Your task to perform on an android device: change keyboard looks Image 0: 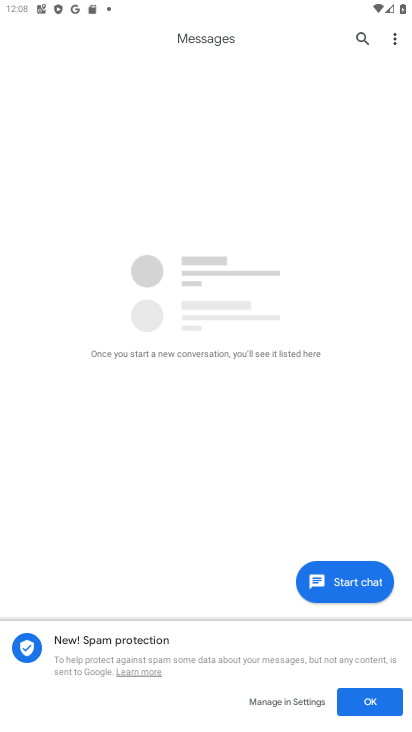
Step 0: press home button
Your task to perform on an android device: change keyboard looks Image 1: 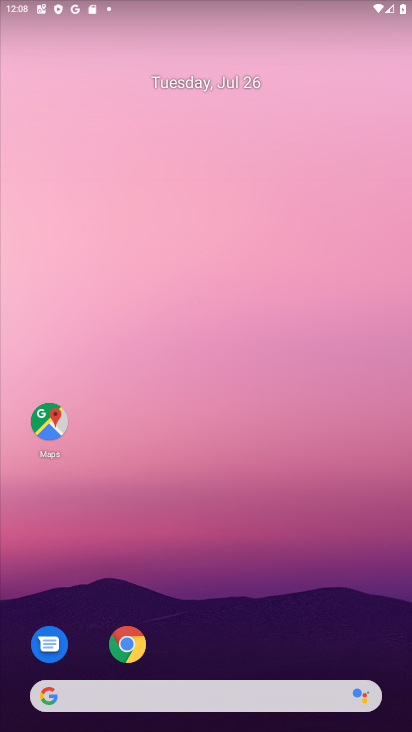
Step 1: drag from (245, 645) to (204, 116)
Your task to perform on an android device: change keyboard looks Image 2: 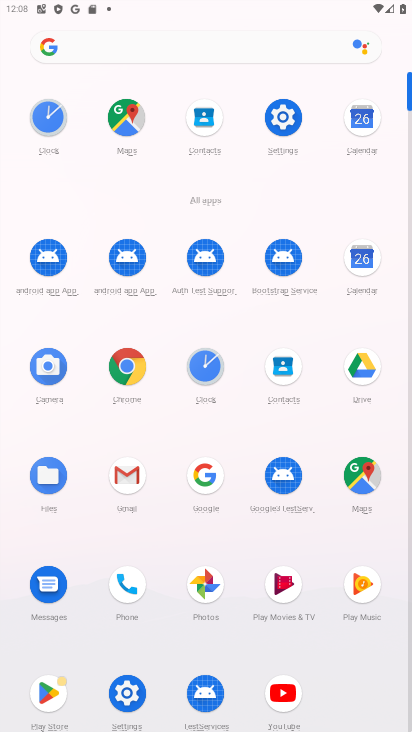
Step 2: click (288, 118)
Your task to perform on an android device: change keyboard looks Image 3: 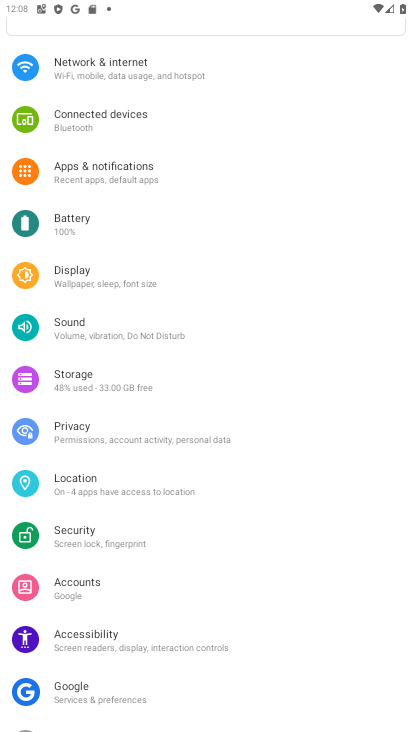
Step 3: drag from (230, 670) to (207, 256)
Your task to perform on an android device: change keyboard looks Image 4: 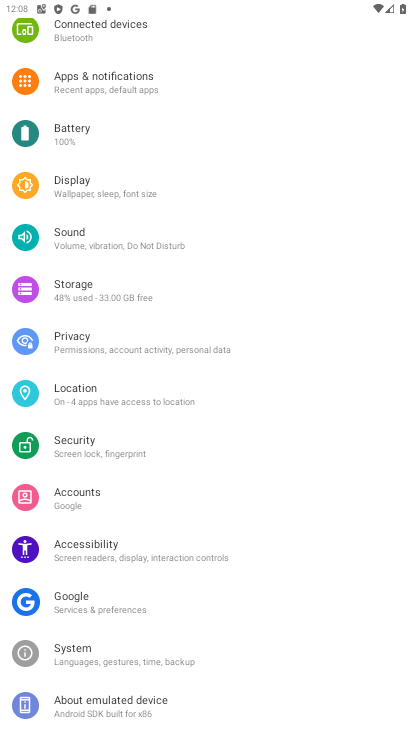
Step 4: click (81, 658)
Your task to perform on an android device: change keyboard looks Image 5: 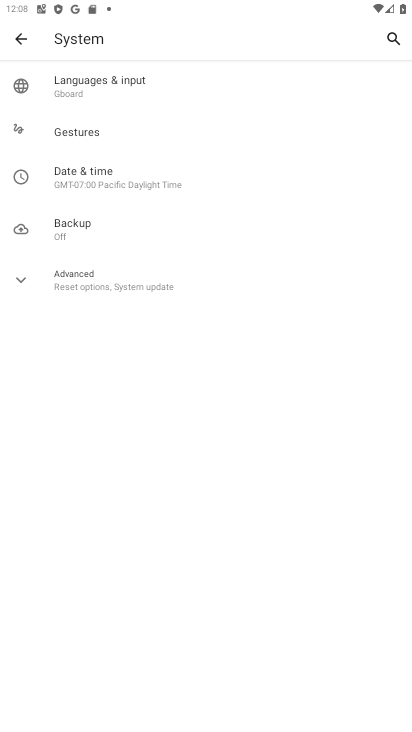
Step 5: click (73, 94)
Your task to perform on an android device: change keyboard looks Image 6: 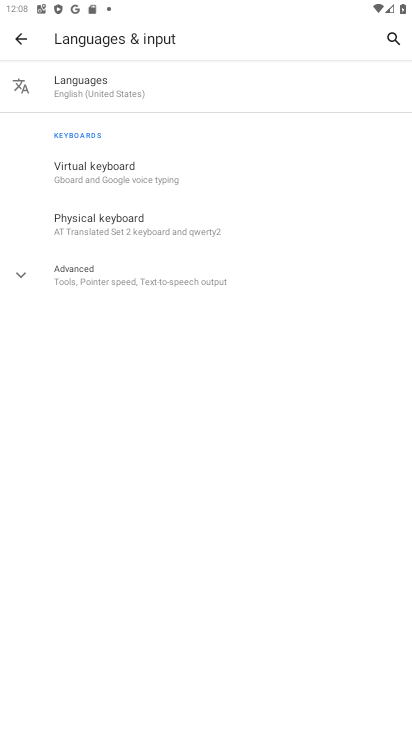
Step 6: click (85, 172)
Your task to perform on an android device: change keyboard looks Image 7: 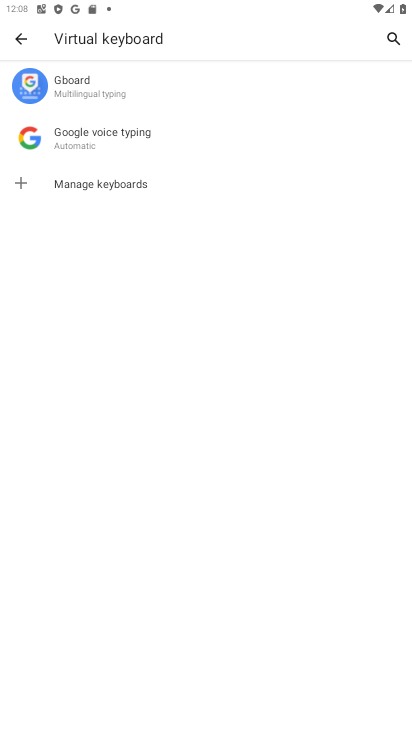
Step 7: click (73, 97)
Your task to perform on an android device: change keyboard looks Image 8: 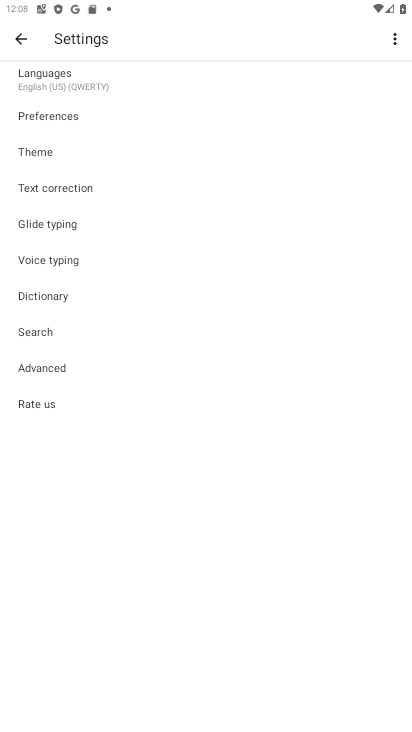
Step 8: click (35, 154)
Your task to perform on an android device: change keyboard looks Image 9: 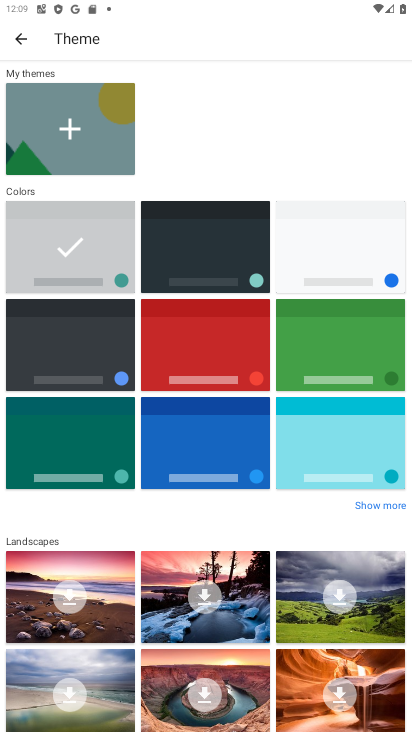
Step 9: click (71, 331)
Your task to perform on an android device: change keyboard looks Image 10: 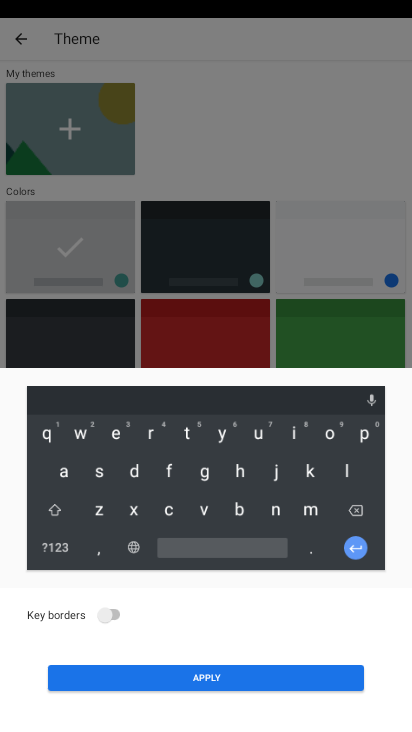
Step 10: click (99, 617)
Your task to perform on an android device: change keyboard looks Image 11: 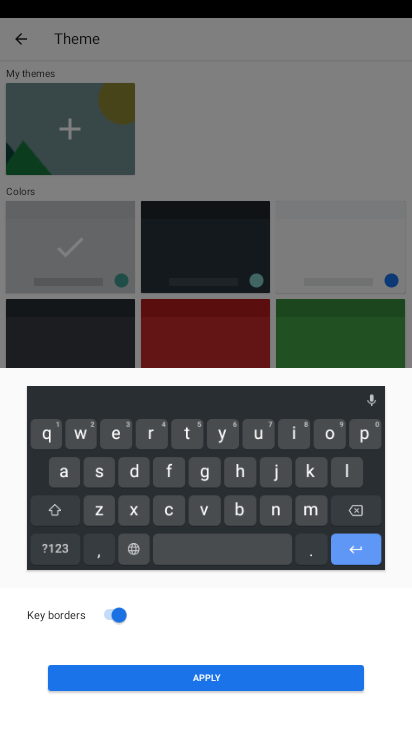
Step 11: click (202, 680)
Your task to perform on an android device: change keyboard looks Image 12: 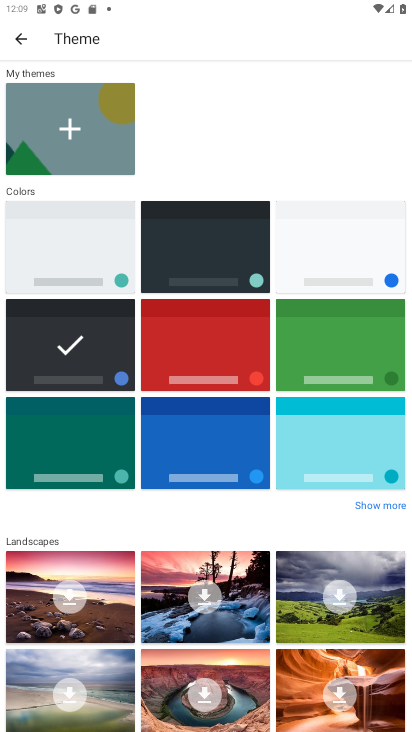
Step 12: task complete